Your task to perform on an android device: Go to accessibility settings Image 0: 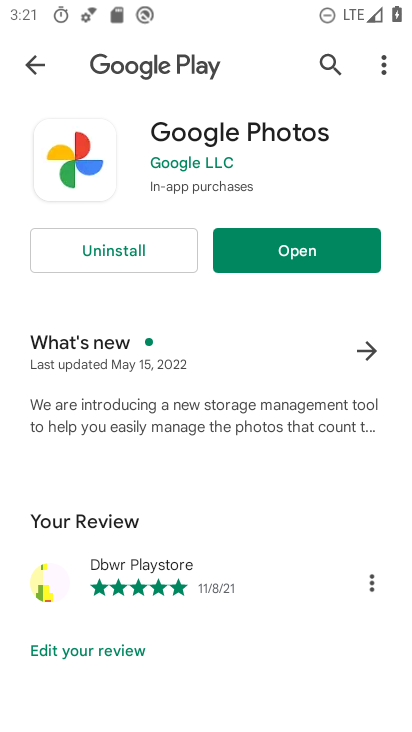
Step 0: press home button
Your task to perform on an android device: Go to accessibility settings Image 1: 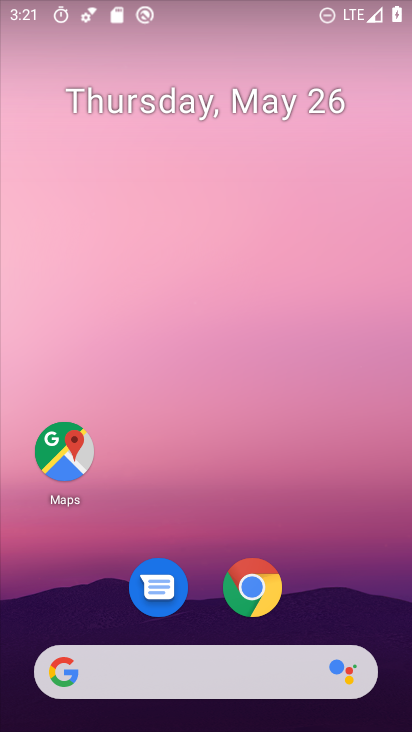
Step 1: drag from (331, 518) to (305, 128)
Your task to perform on an android device: Go to accessibility settings Image 2: 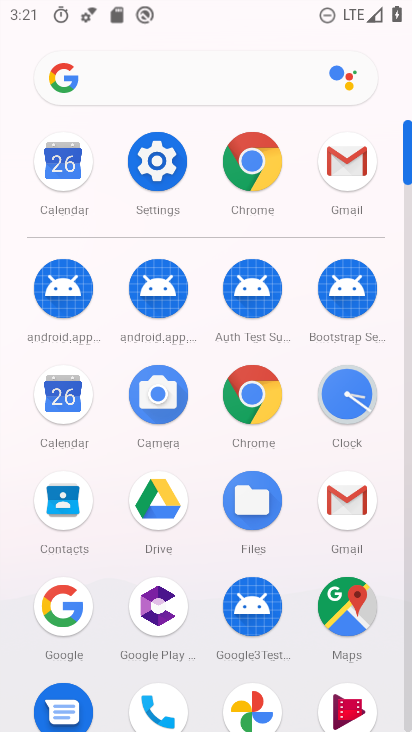
Step 2: drag from (222, 550) to (191, 583)
Your task to perform on an android device: Go to accessibility settings Image 3: 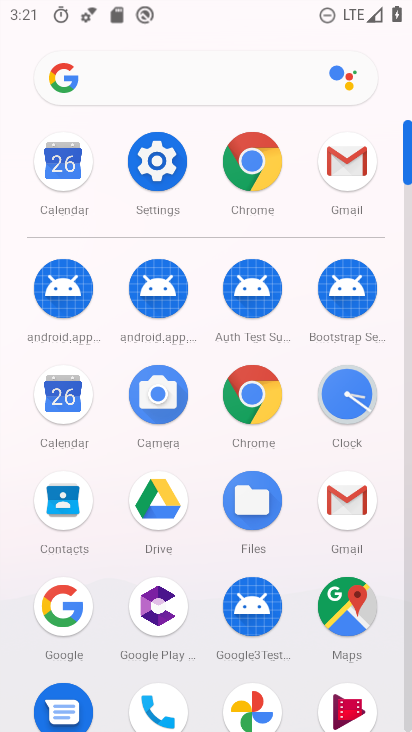
Step 3: click (176, 163)
Your task to perform on an android device: Go to accessibility settings Image 4: 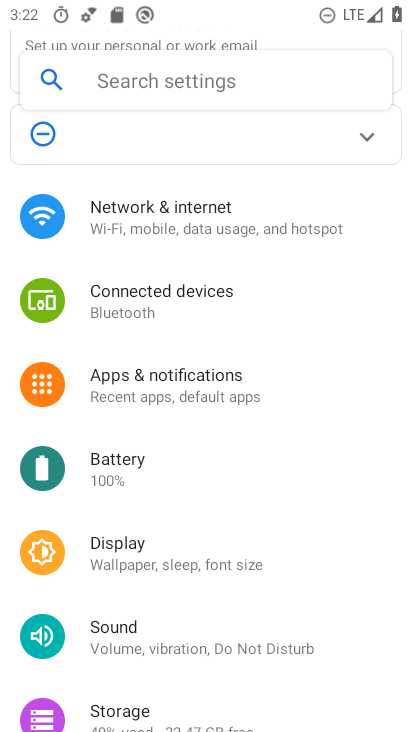
Step 4: drag from (221, 564) to (387, 137)
Your task to perform on an android device: Go to accessibility settings Image 5: 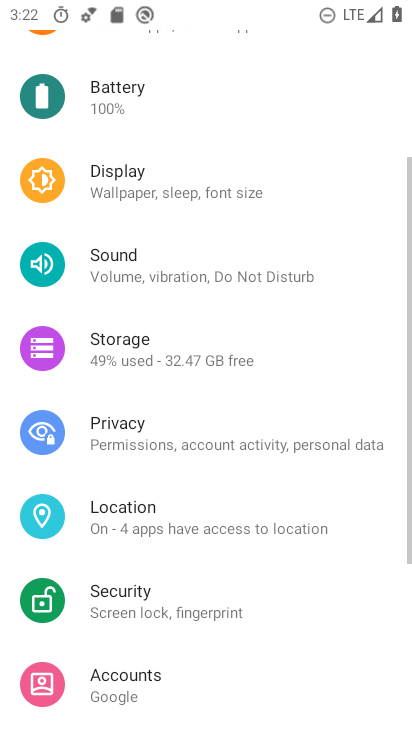
Step 5: drag from (211, 591) to (319, 217)
Your task to perform on an android device: Go to accessibility settings Image 6: 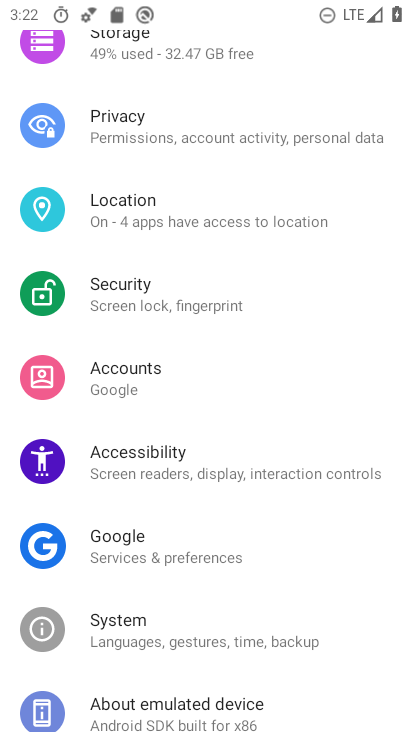
Step 6: drag from (162, 530) to (184, 413)
Your task to perform on an android device: Go to accessibility settings Image 7: 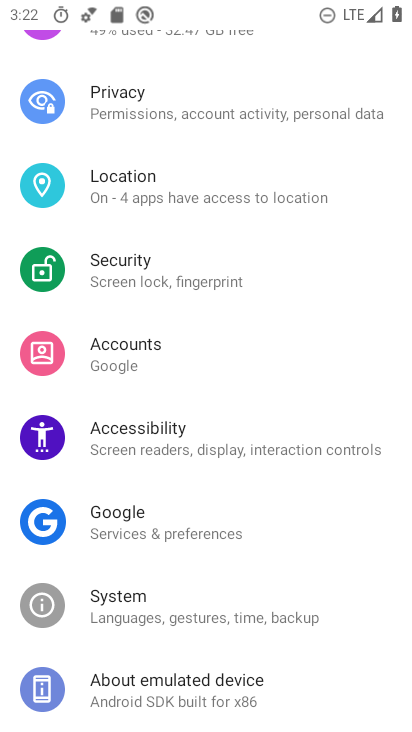
Step 7: click (154, 416)
Your task to perform on an android device: Go to accessibility settings Image 8: 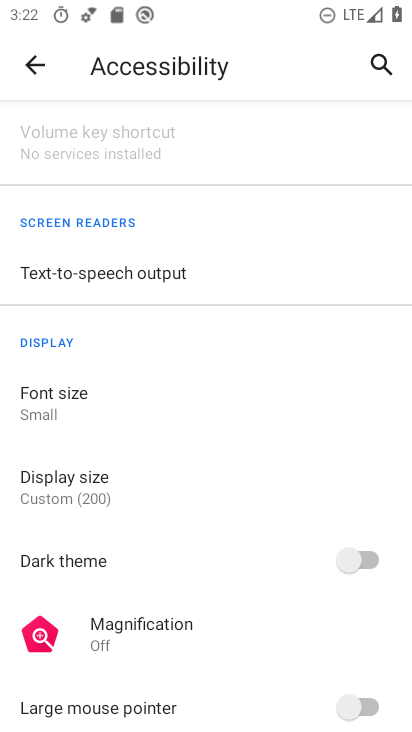
Step 8: task complete